Your task to perform on an android device: change the clock display to analog Image 0: 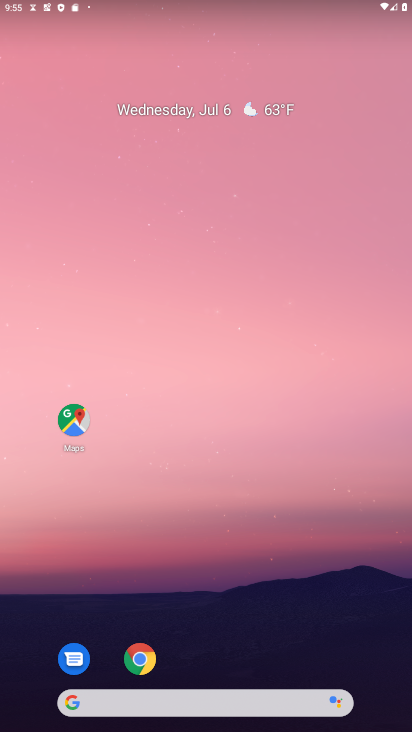
Step 0: drag from (169, 646) to (289, 141)
Your task to perform on an android device: change the clock display to analog Image 1: 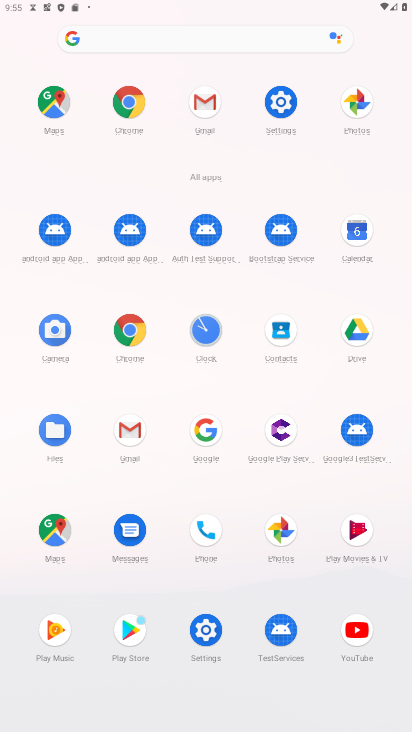
Step 1: click (202, 324)
Your task to perform on an android device: change the clock display to analog Image 2: 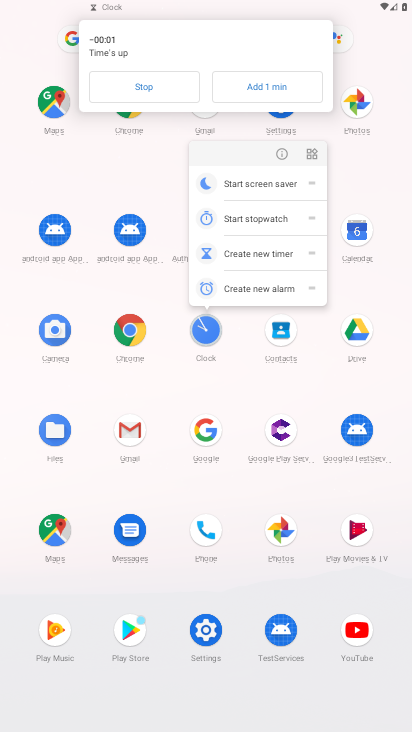
Step 2: click (276, 154)
Your task to perform on an android device: change the clock display to analog Image 3: 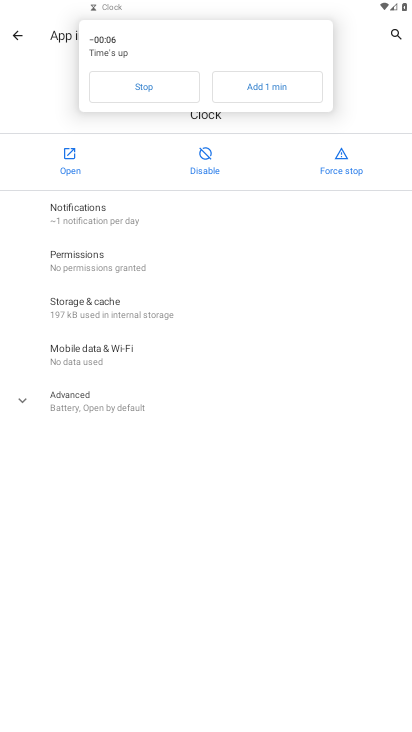
Step 3: click (71, 154)
Your task to perform on an android device: change the clock display to analog Image 4: 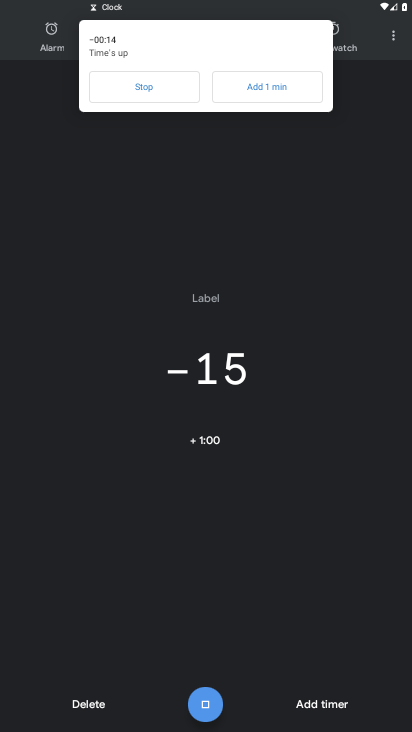
Step 4: click (168, 84)
Your task to perform on an android device: change the clock display to analog Image 5: 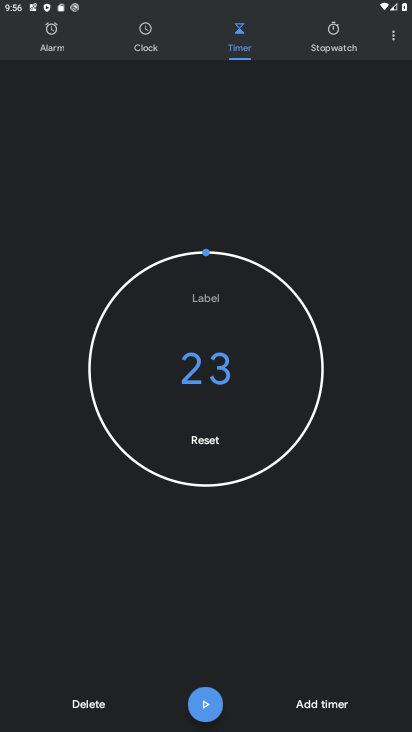
Step 5: click (390, 37)
Your task to perform on an android device: change the clock display to analog Image 6: 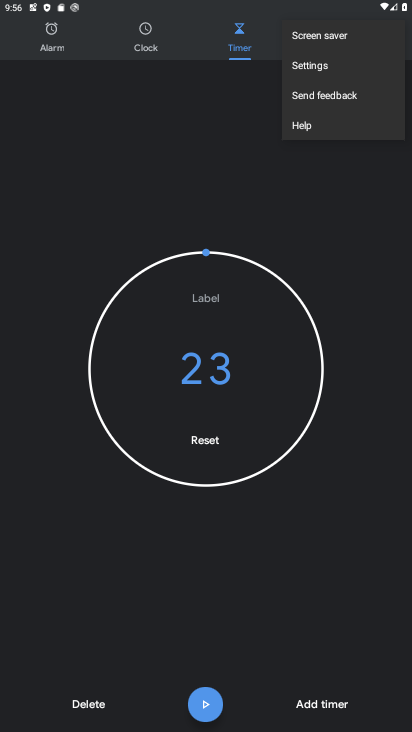
Step 6: click (299, 62)
Your task to perform on an android device: change the clock display to analog Image 7: 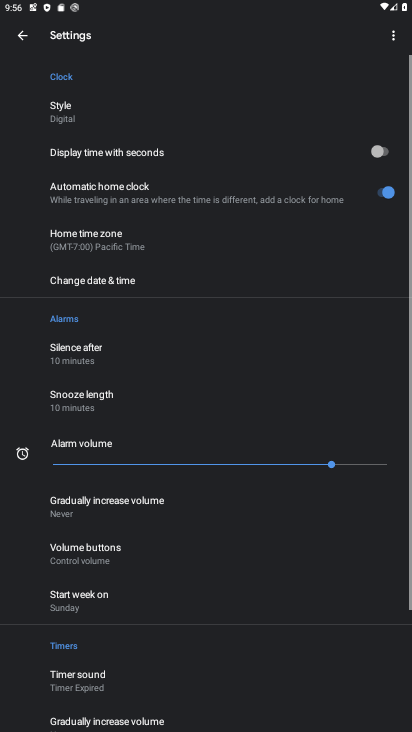
Step 7: click (160, 107)
Your task to perform on an android device: change the clock display to analog Image 8: 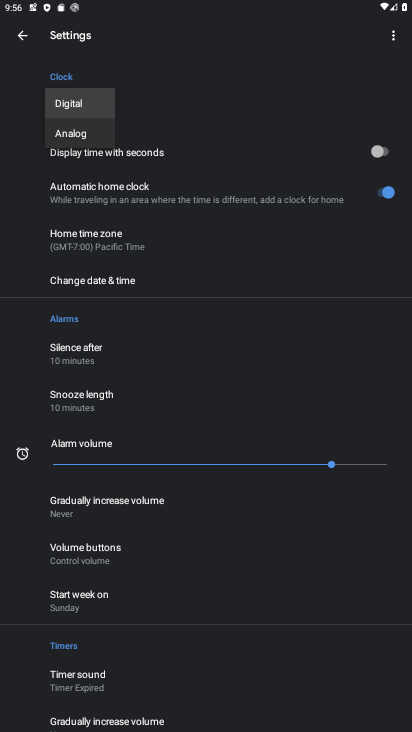
Step 8: click (72, 127)
Your task to perform on an android device: change the clock display to analog Image 9: 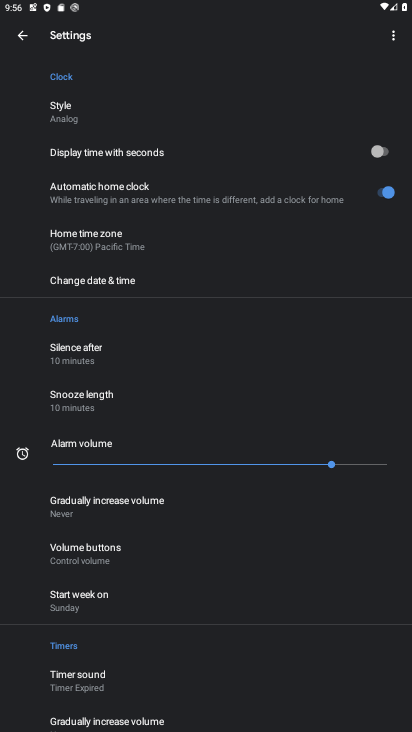
Step 9: task complete